Your task to perform on an android device: Do I have any events this weekend? Image 0: 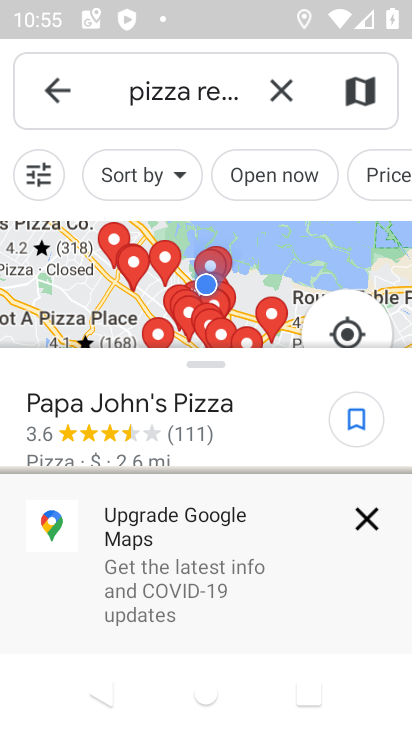
Step 0: press home button
Your task to perform on an android device: Do I have any events this weekend? Image 1: 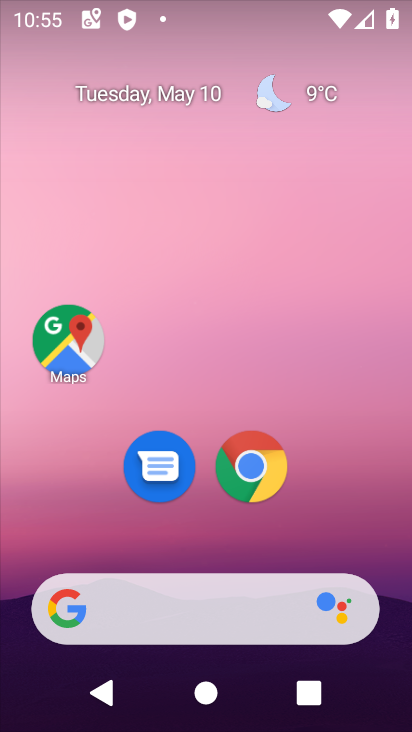
Step 1: drag from (240, 465) to (235, 9)
Your task to perform on an android device: Do I have any events this weekend? Image 2: 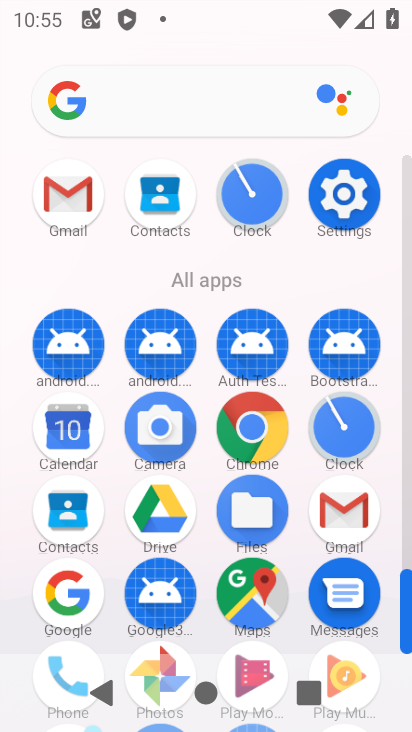
Step 2: click (62, 432)
Your task to perform on an android device: Do I have any events this weekend? Image 3: 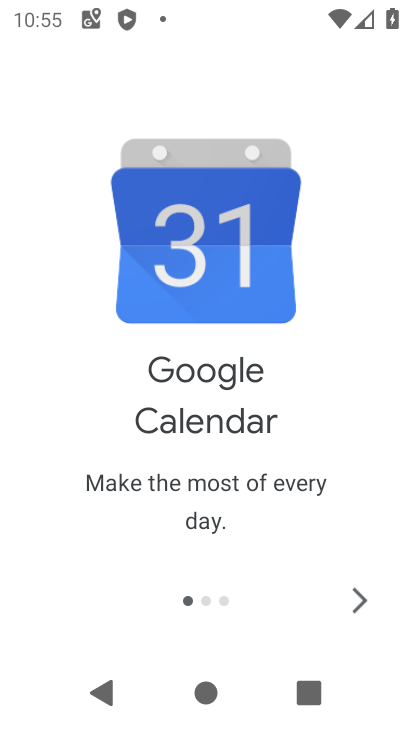
Step 3: click (369, 595)
Your task to perform on an android device: Do I have any events this weekend? Image 4: 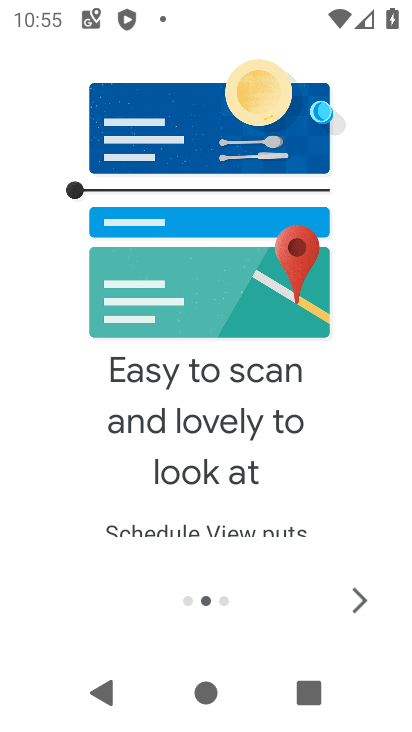
Step 4: click (369, 596)
Your task to perform on an android device: Do I have any events this weekend? Image 5: 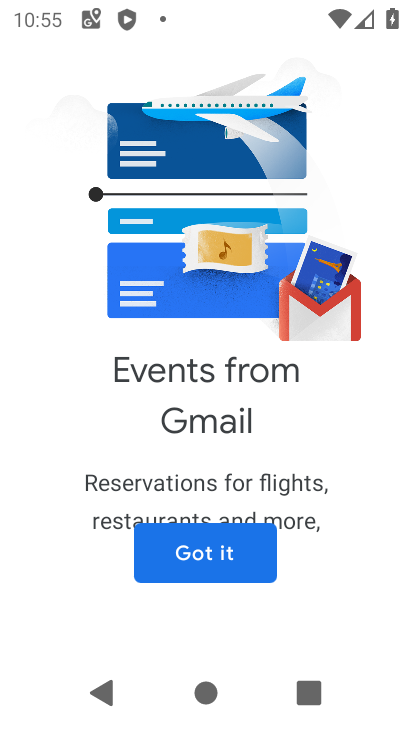
Step 5: click (231, 560)
Your task to perform on an android device: Do I have any events this weekend? Image 6: 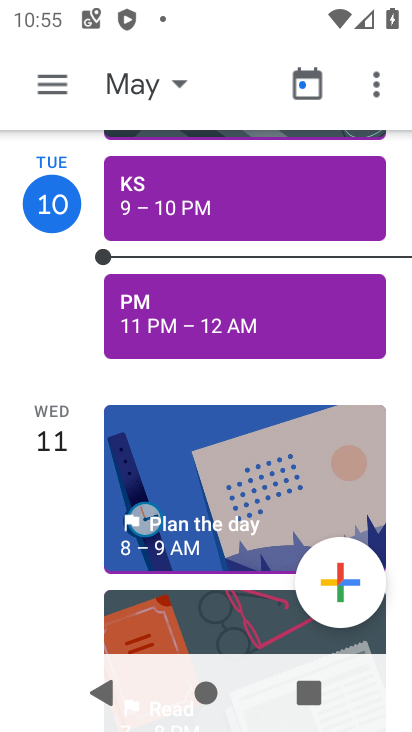
Step 6: click (157, 71)
Your task to perform on an android device: Do I have any events this weekend? Image 7: 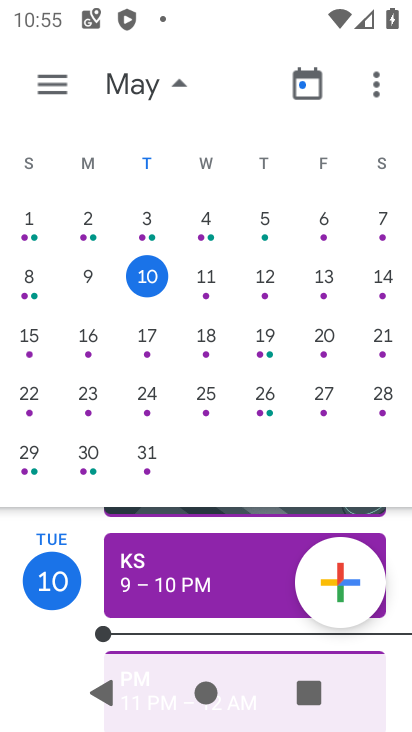
Step 7: click (394, 278)
Your task to perform on an android device: Do I have any events this weekend? Image 8: 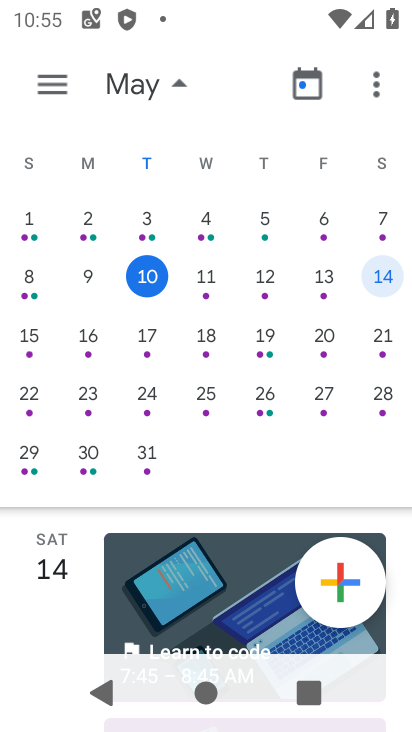
Step 8: task complete